Your task to perform on an android device: open a new tab in the chrome app Image 0: 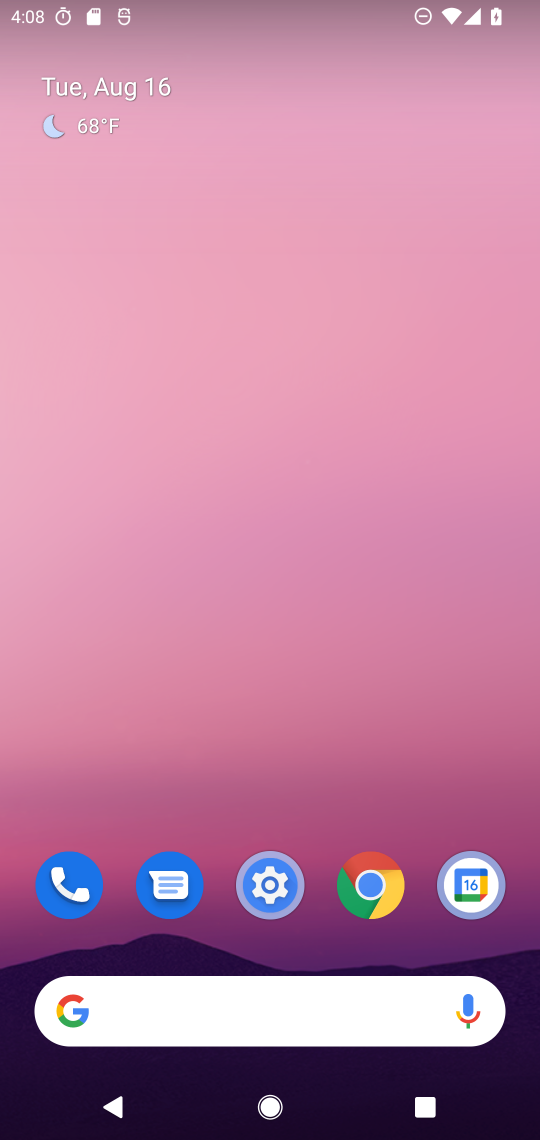
Step 0: drag from (353, 987) to (184, 68)
Your task to perform on an android device: open a new tab in the chrome app Image 1: 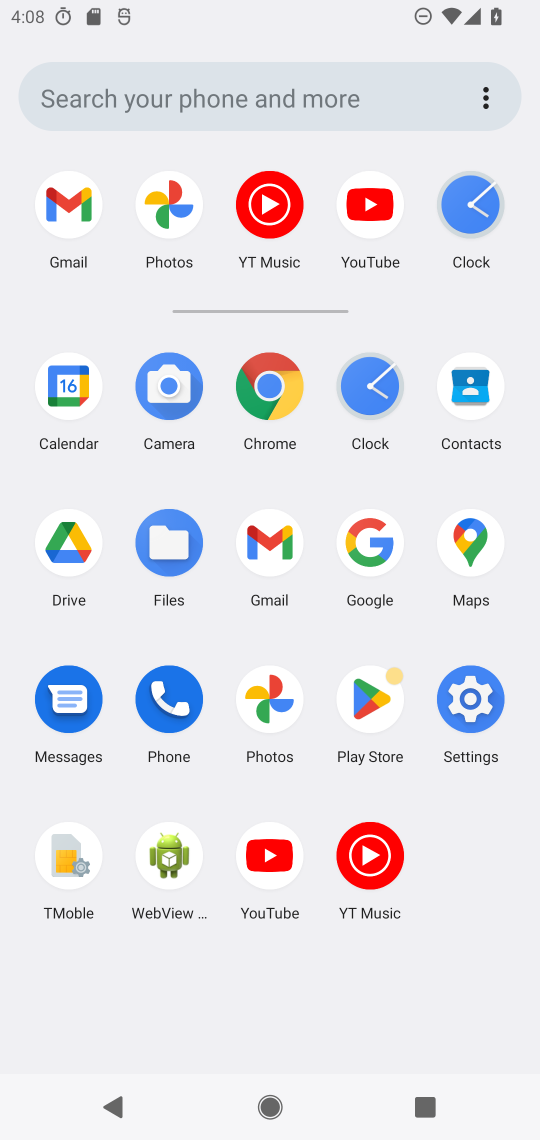
Step 1: click (257, 379)
Your task to perform on an android device: open a new tab in the chrome app Image 2: 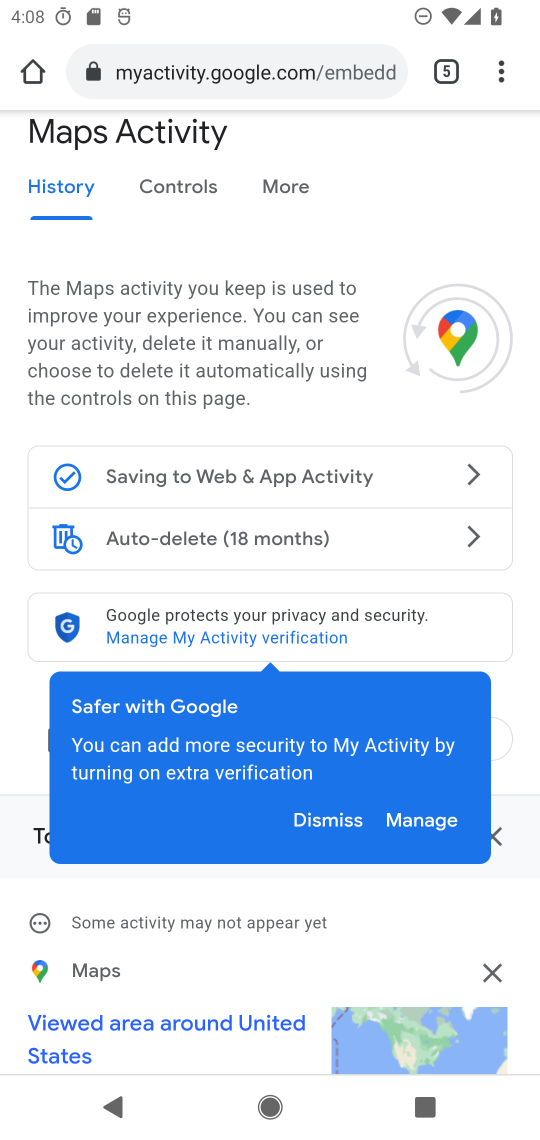
Step 2: click (501, 68)
Your task to perform on an android device: open a new tab in the chrome app Image 3: 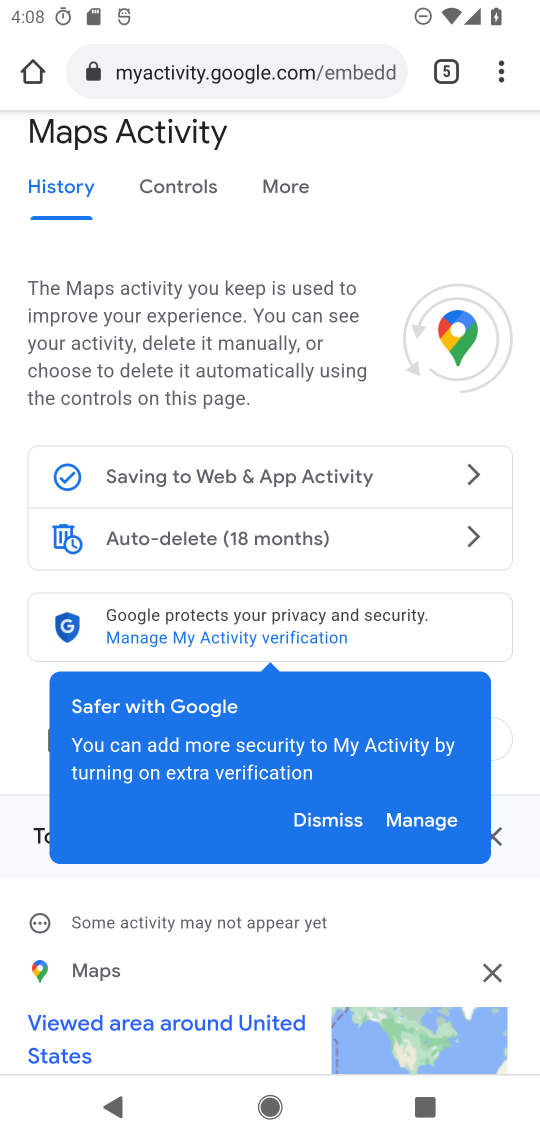
Step 3: click (501, 68)
Your task to perform on an android device: open a new tab in the chrome app Image 4: 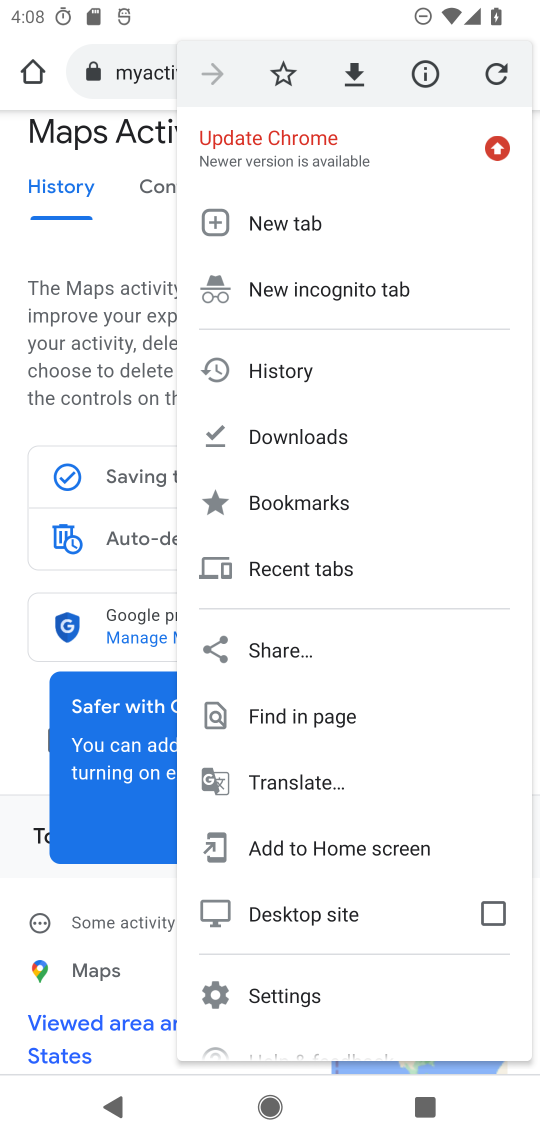
Step 4: click (299, 215)
Your task to perform on an android device: open a new tab in the chrome app Image 5: 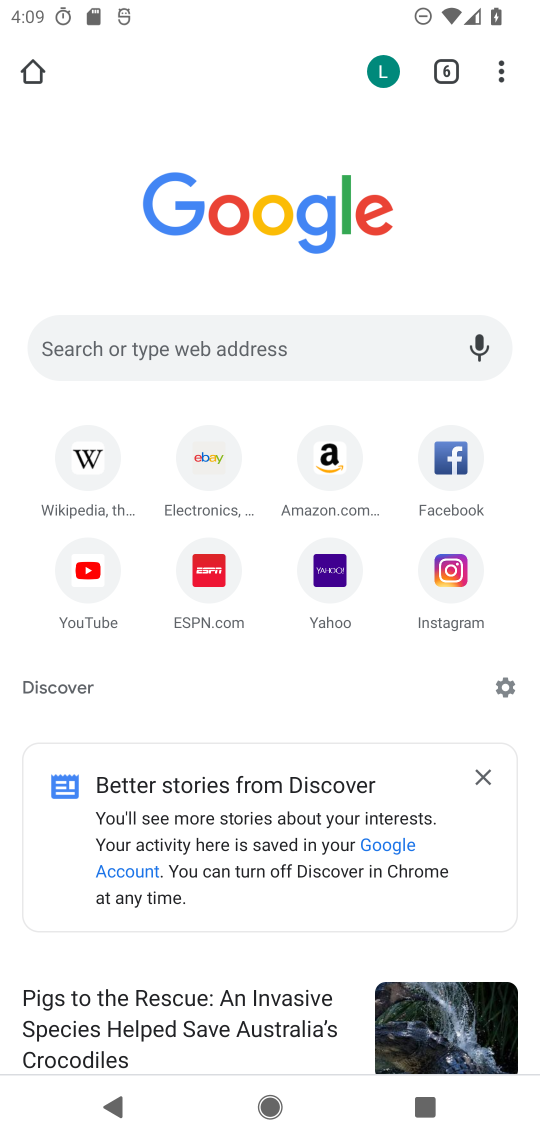
Step 5: task complete